Your task to perform on an android device: Go to wifi settings Image 0: 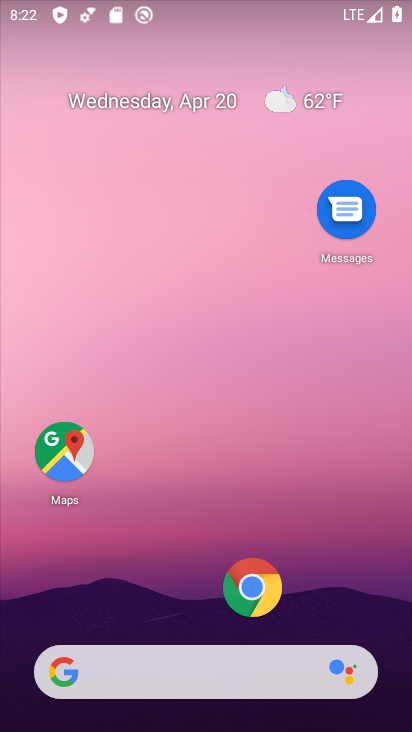
Step 0: drag from (148, 670) to (320, 53)
Your task to perform on an android device: Go to wifi settings Image 1: 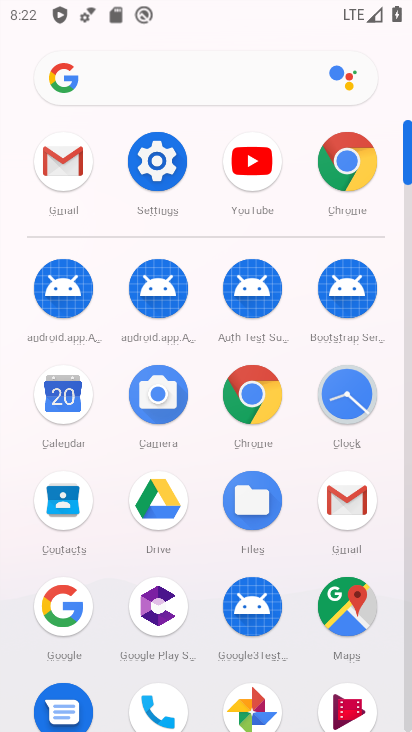
Step 1: click (157, 161)
Your task to perform on an android device: Go to wifi settings Image 2: 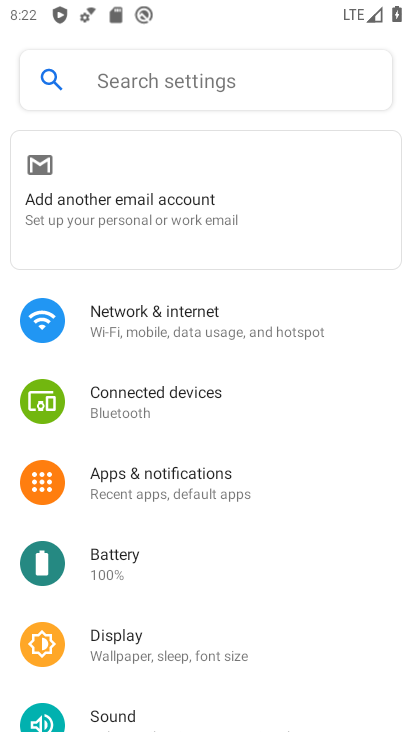
Step 2: click (174, 320)
Your task to perform on an android device: Go to wifi settings Image 3: 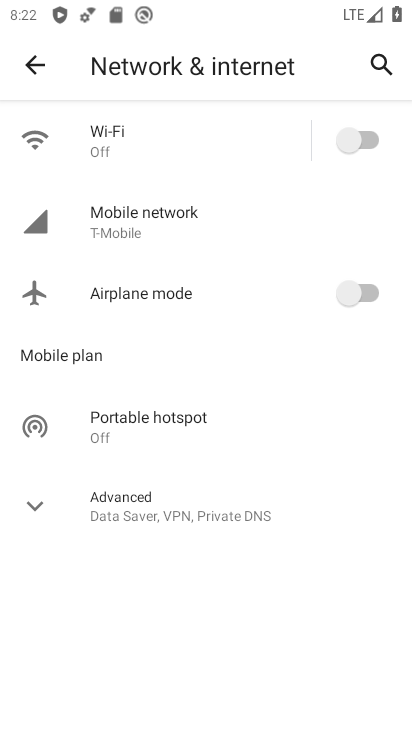
Step 3: click (129, 129)
Your task to perform on an android device: Go to wifi settings Image 4: 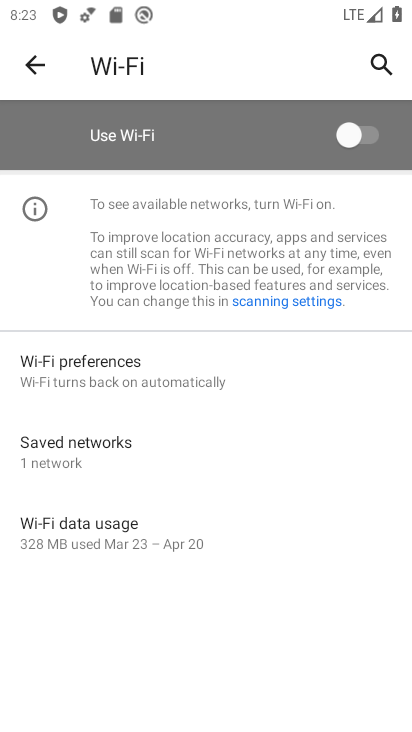
Step 4: task complete